Your task to perform on an android device: stop showing notifications on the lock screen Image 0: 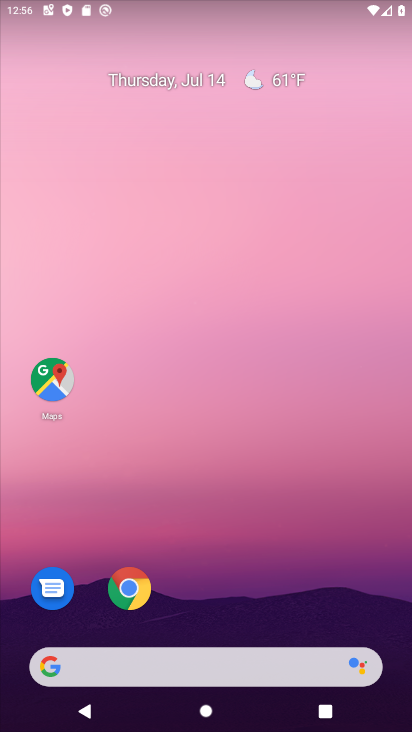
Step 0: drag from (240, 637) to (244, 305)
Your task to perform on an android device: stop showing notifications on the lock screen Image 1: 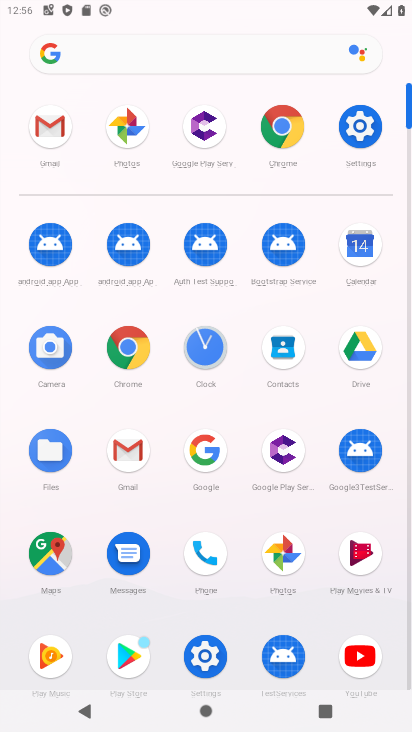
Step 1: click (349, 126)
Your task to perform on an android device: stop showing notifications on the lock screen Image 2: 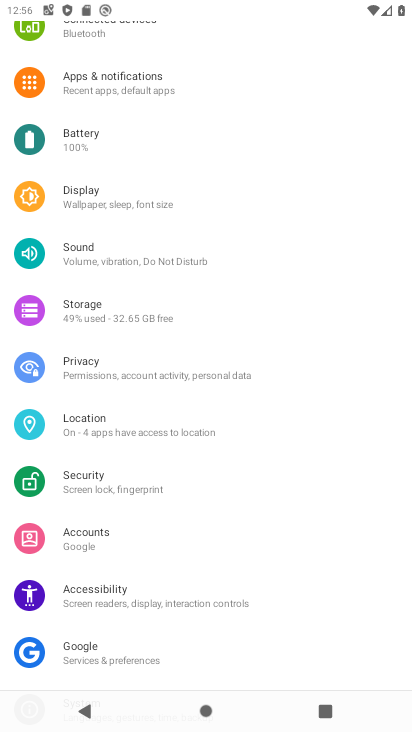
Step 2: drag from (110, 83) to (105, 533)
Your task to perform on an android device: stop showing notifications on the lock screen Image 3: 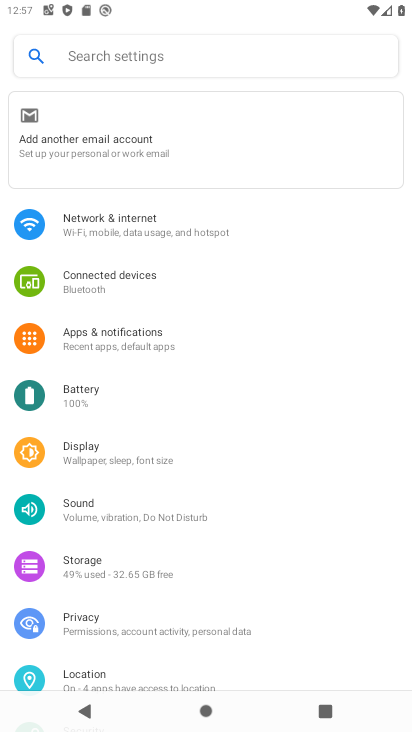
Step 3: click (151, 227)
Your task to perform on an android device: stop showing notifications on the lock screen Image 4: 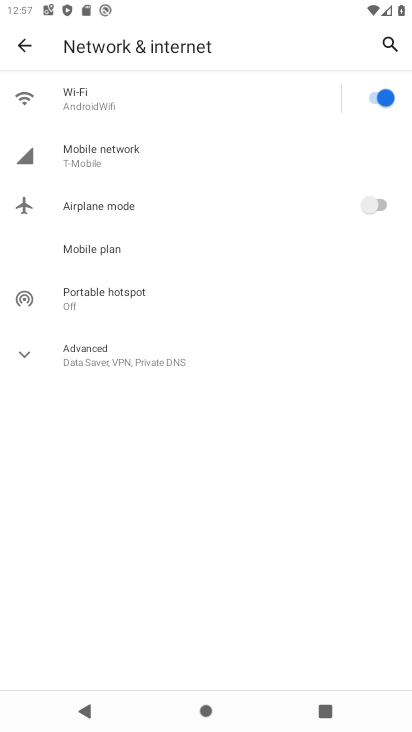
Step 4: click (34, 41)
Your task to perform on an android device: stop showing notifications on the lock screen Image 5: 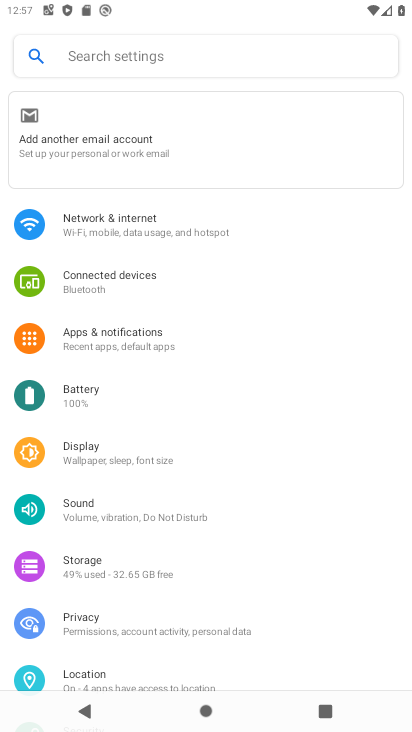
Step 5: click (107, 330)
Your task to perform on an android device: stop showing notifications on the lock screen Image 6: 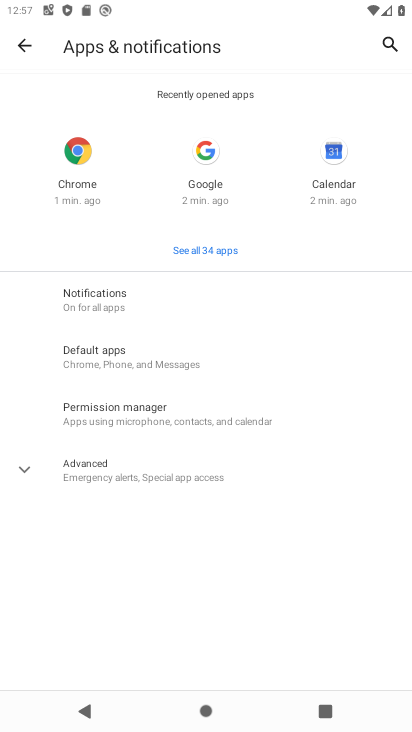
Step 6: click (144, 303)
Your task to perform on an android device: stop showing notifications on the lock screen Image 7: 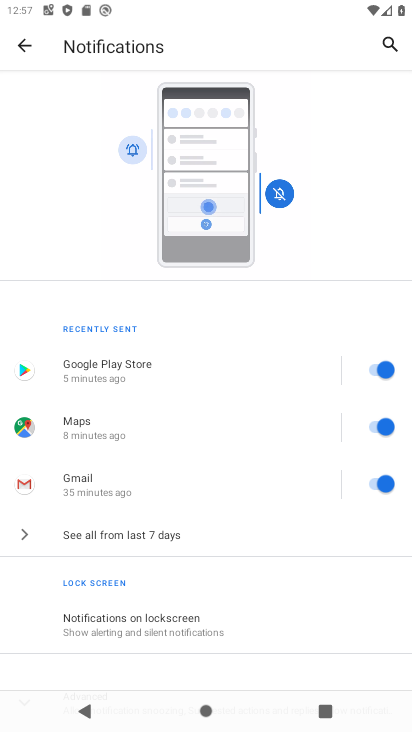
Step 7: click (159, 627)
Your task to perform on an android device: stop showing notifications on the lock screen Image 8: 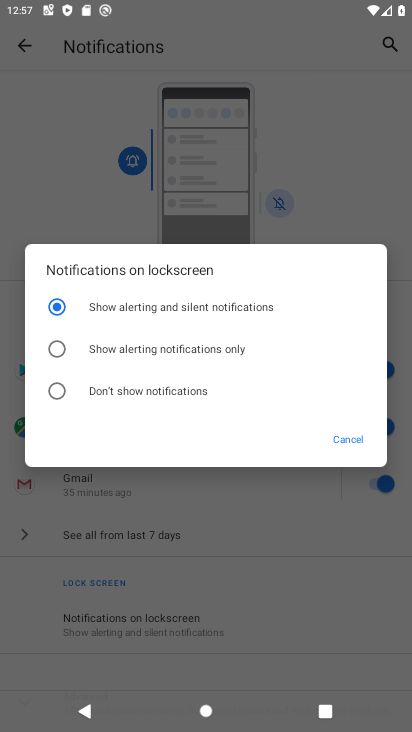
Step 8: drag from (193, 547) to (288, 186)
Your task to perform on an android device: stop showing notifications on the lock screen Image 9: 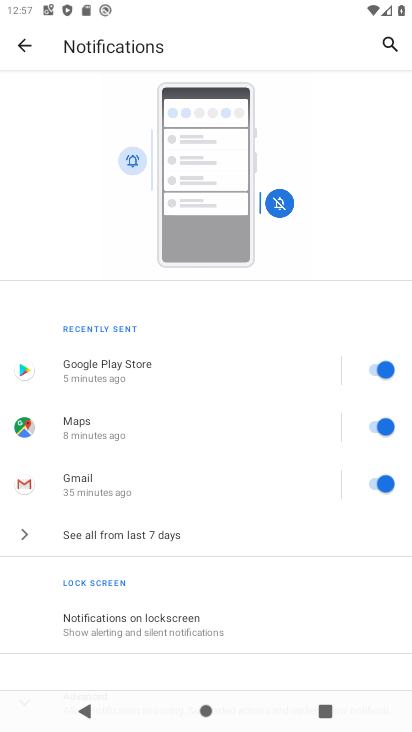
Step 9: click (204, 612)
Your task to perform on an android device: stop showing notifications on the lock screen Image 10: 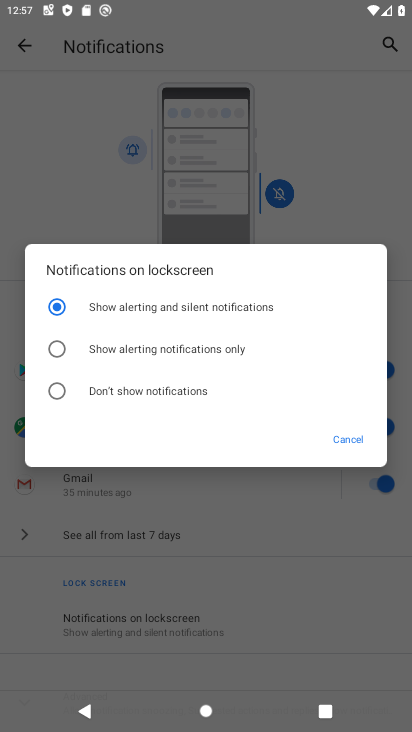
Step 10: click (125, 385)
Your task to perform on an android device: stop showing notifications on the lock screen Image 11: 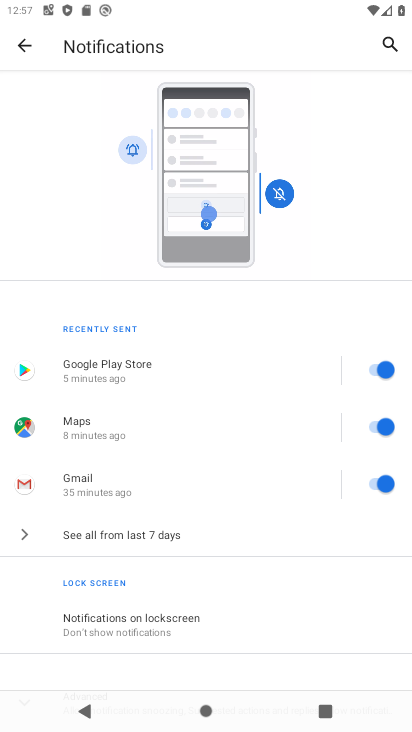
Step 11: task complete